Your task to perform on an android device: toggle translation in the chrome app Image 0: 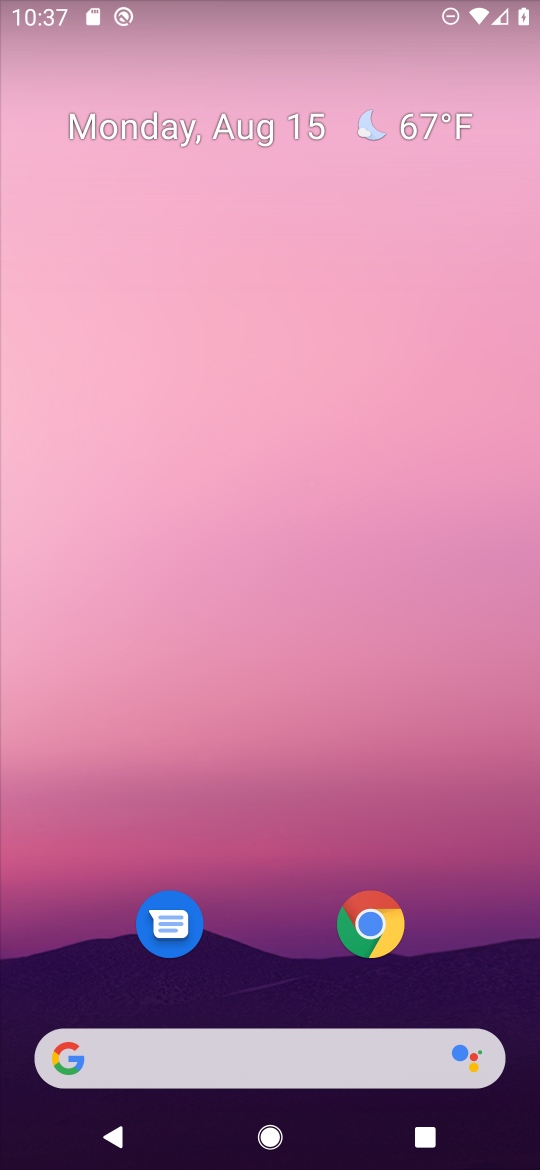
Step 0: click (373, 926)
Your task to perform on an android device: toggle translation in the chrome app Image 1: 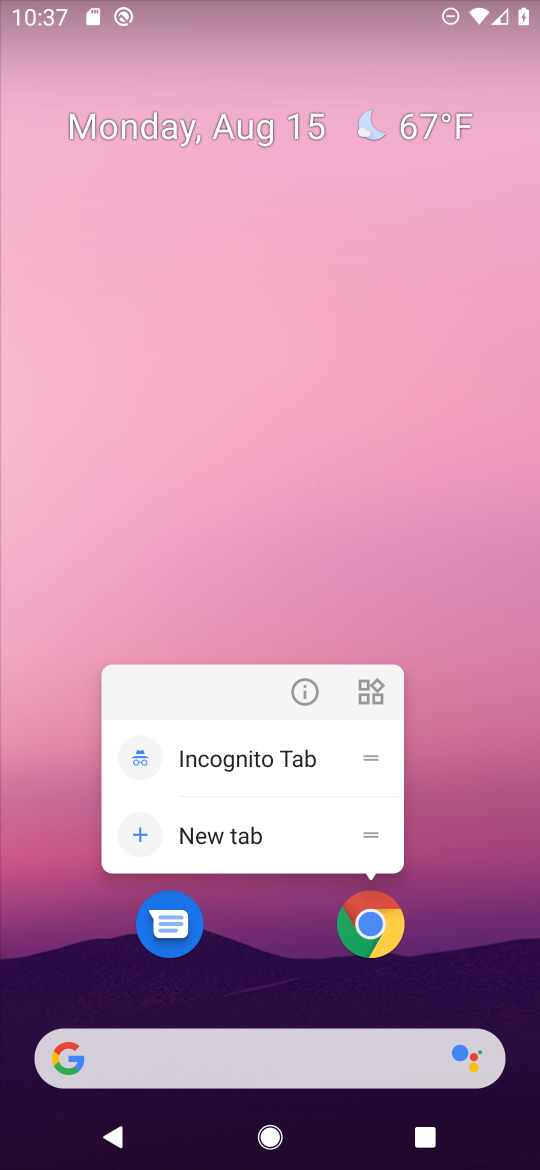
Step 1: click (375, 925)
Your task to perform on an android device: toggle translation in the chrome app Image 2: 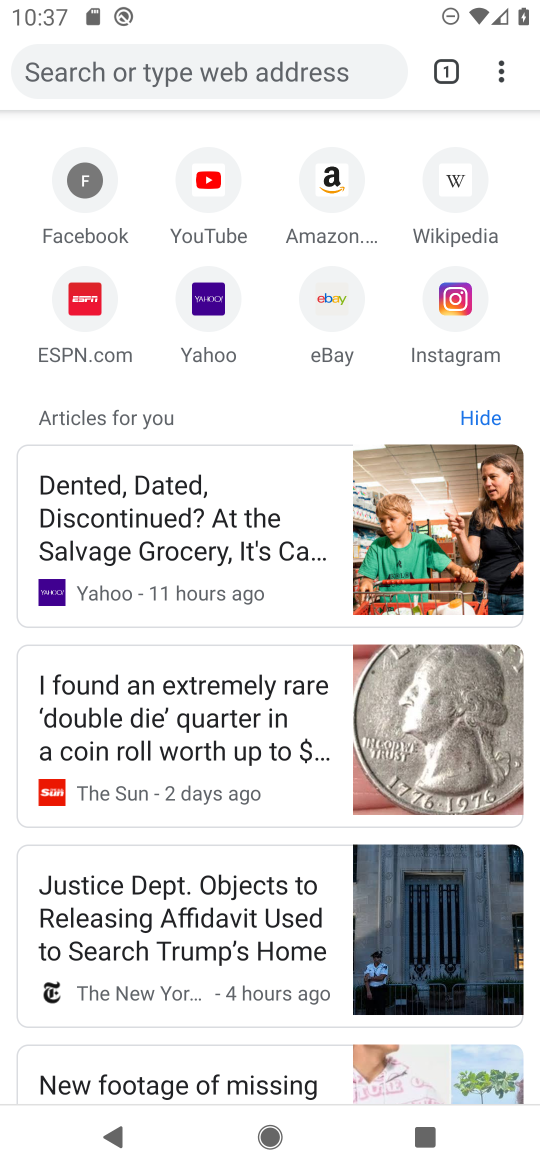
Step 2: click (494, 80)
Your task to perform on an android device: toggle translation in the chrome app Image 3: 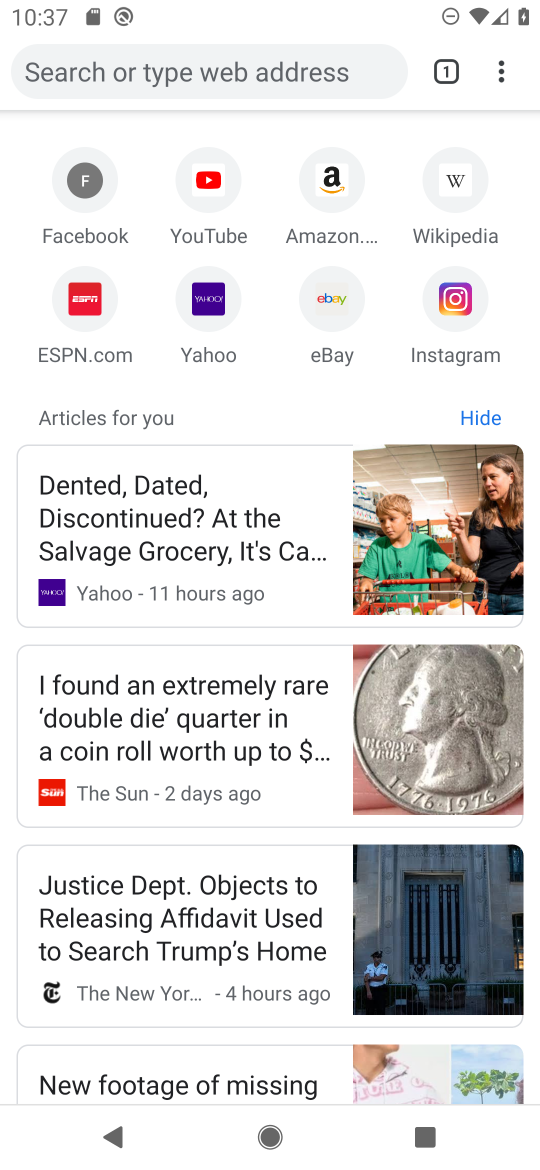
Step 3: click (501, 78)
Your task to perform on an android device: toggle translation in the chrome app Image 4: 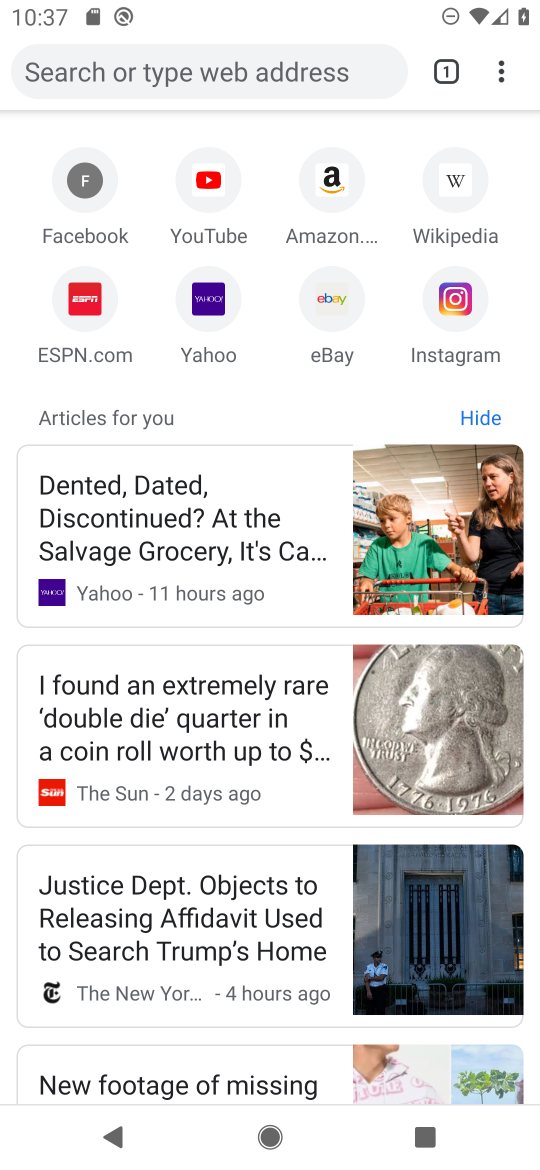
Step 4: click (495, 81)
Your task to perform on an android device: toggle translation in the chrome app Image 5: 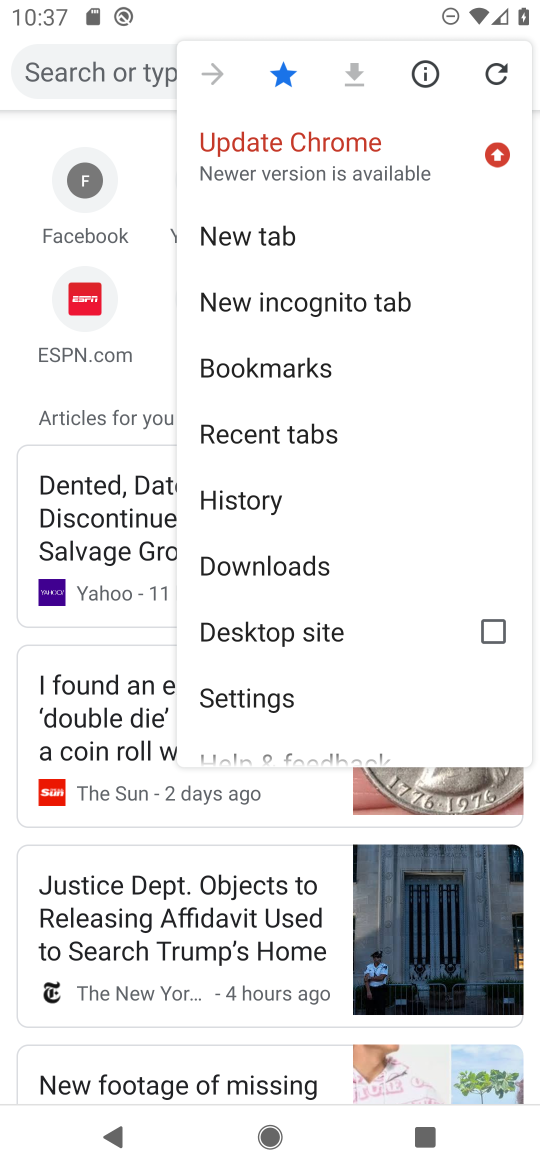
Step 5: click (263, 689)
Your task to perform on an android device: toggle translation in the chrome app Image 6: 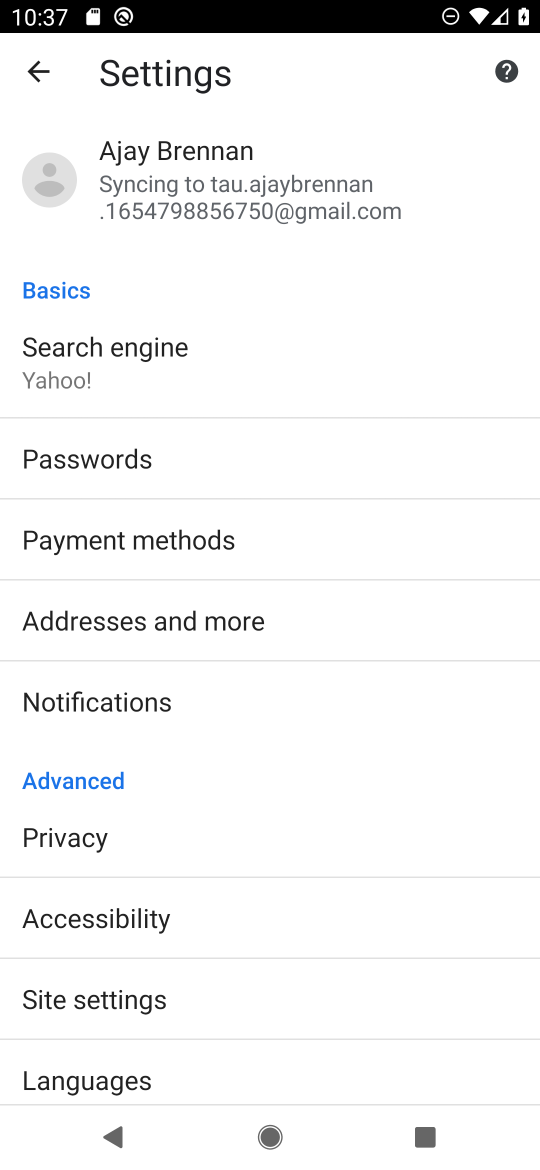
Step 6: drag from (226, 1038) to (265, 534)
Your task to perform on an android device: toggle translation in the chrome app Image 7: 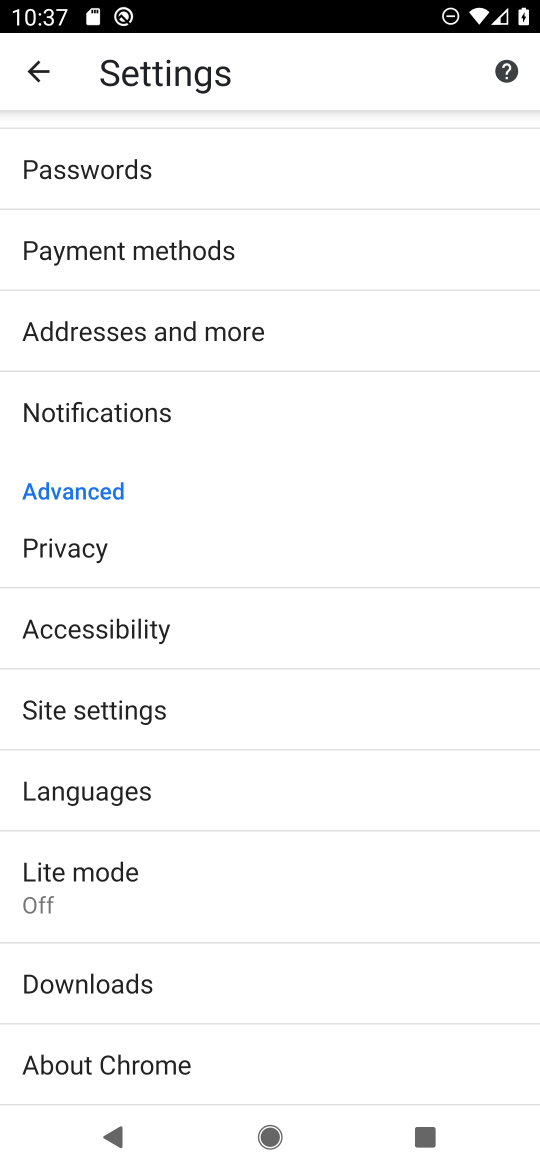
Step 7: click (85, 783)
Your task to perform on an android device: toggle translation in the chrome app Image 8: 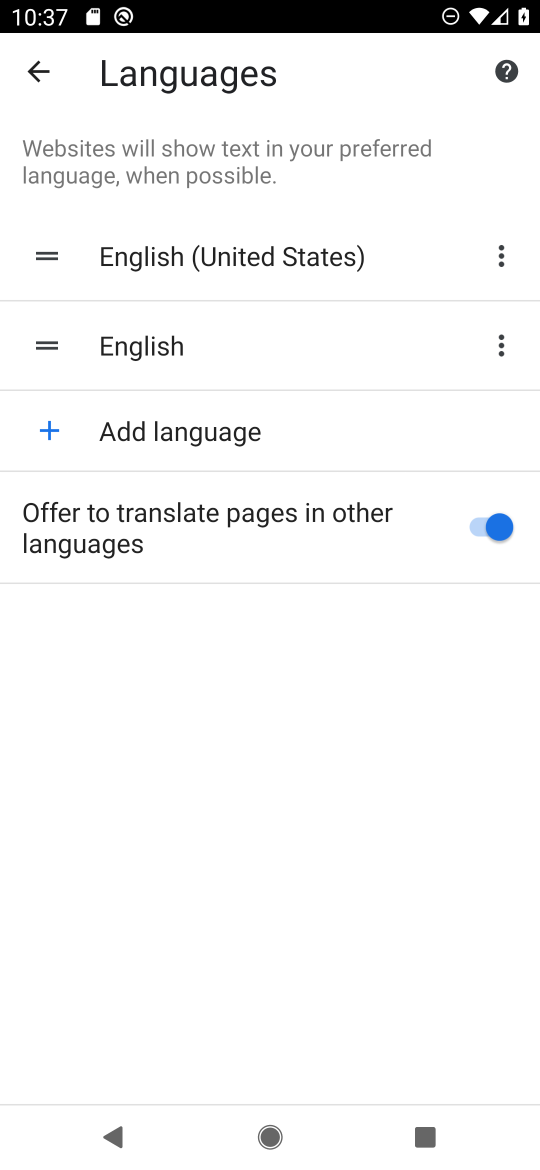
Step 8: click (475, 526)
Your task to perform on an android device: toggle translation in the chrome app Image 9: 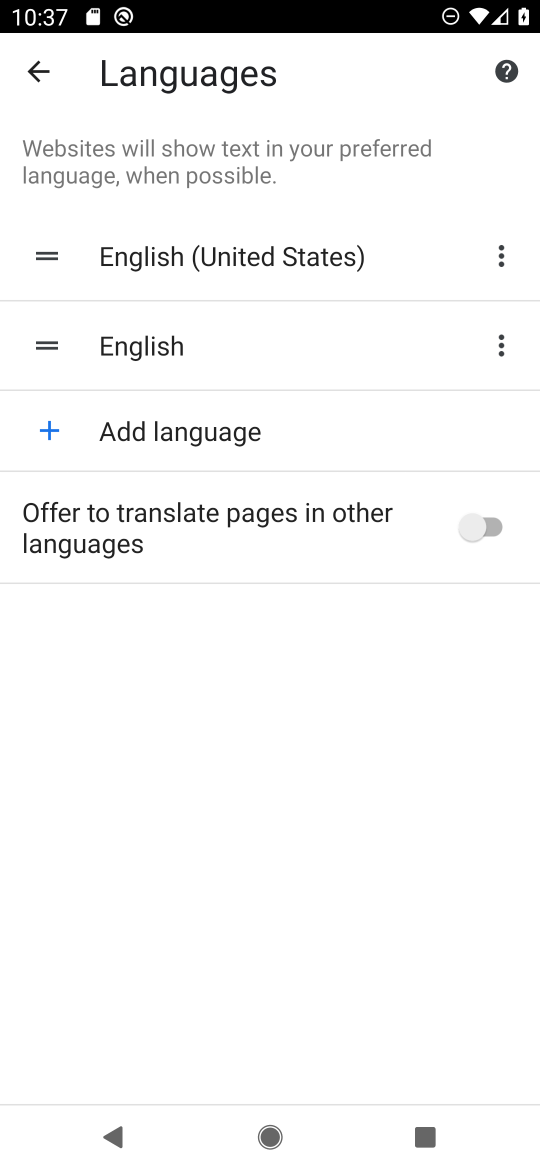
Step 9: task complete